Your task to perform on an android device: What is the recent news? Image 0: 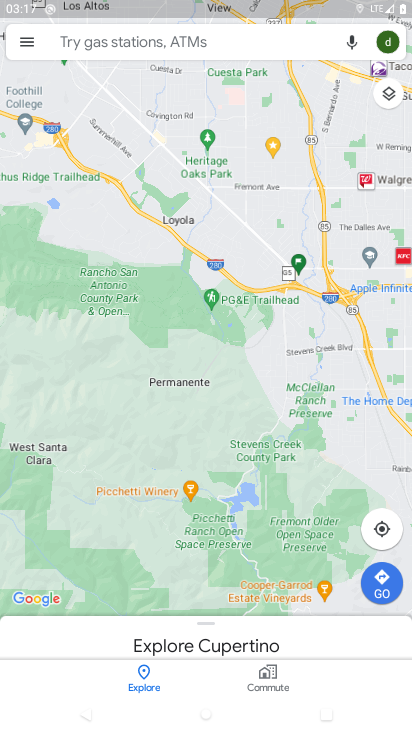
Step 0: press home button
Your task to perform on an android device: What is the recent news? Image 1: 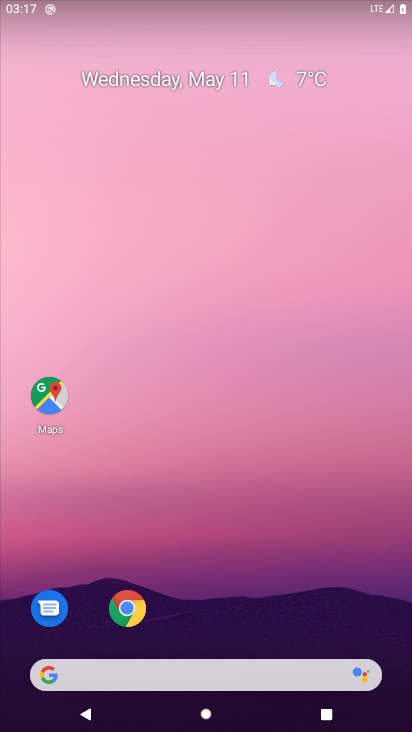
Step 1: task complete